Your task to perform on an android device: open device folders in google photos Image 0: 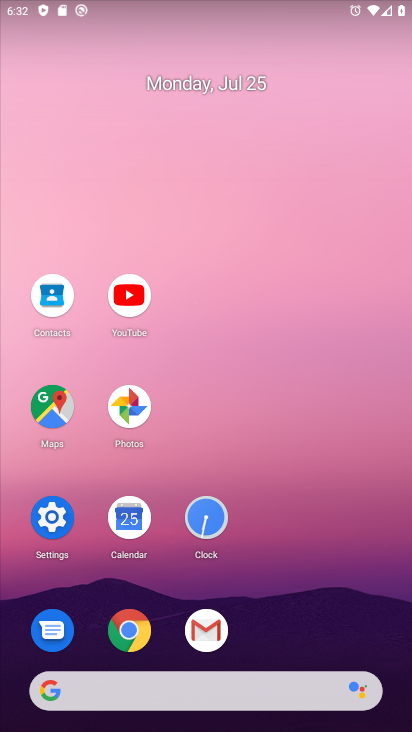
Step 0: click (128, 404)
Your task to perform on an android device: open device folders in google photos Image 1: 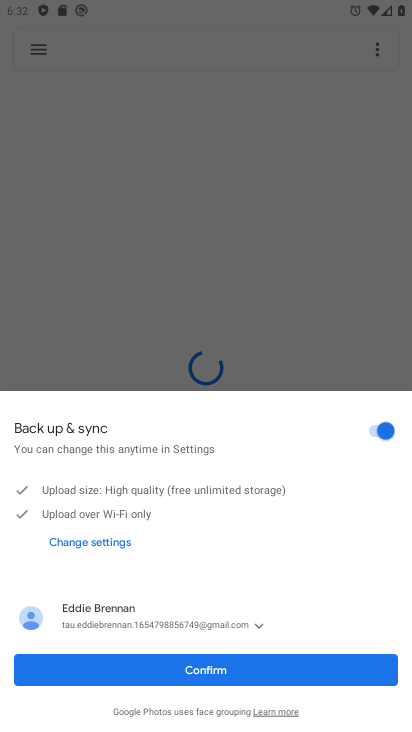
Step 1: click (37, 49)
Your task to perform on an android device: open device folders in google photos Image 2: 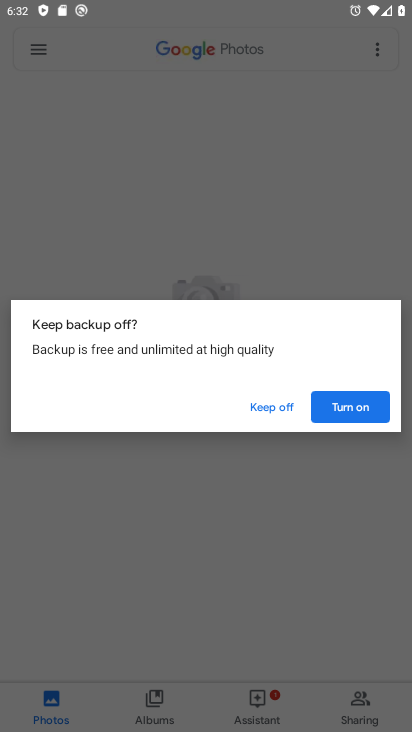
Step 2: click (337, 415)
Your task to perform on an android device: open device folders in google photos Image 3: 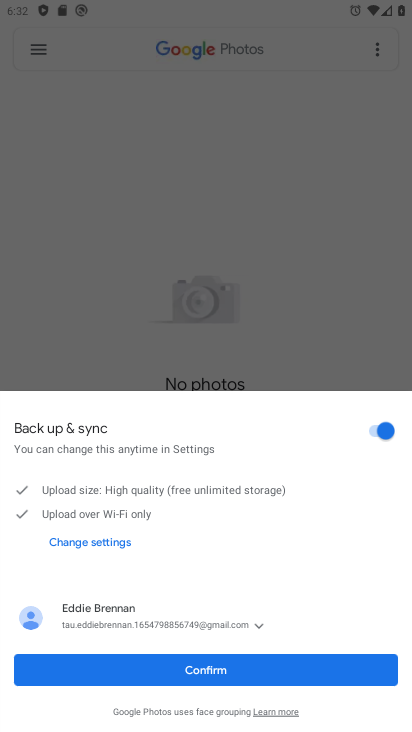
Step 3: click (230, 675)
Your task to perform on an android device: open device folders in google photos Image 4: 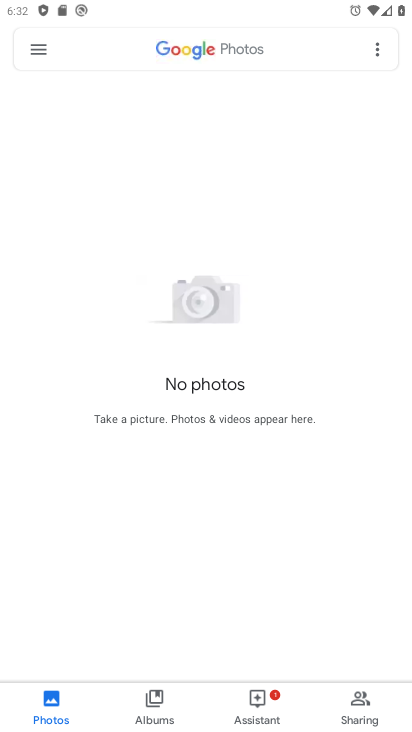
Step 4: click (41, 51)
Your task to perform on an android device: open device folders in google photos Image 5: 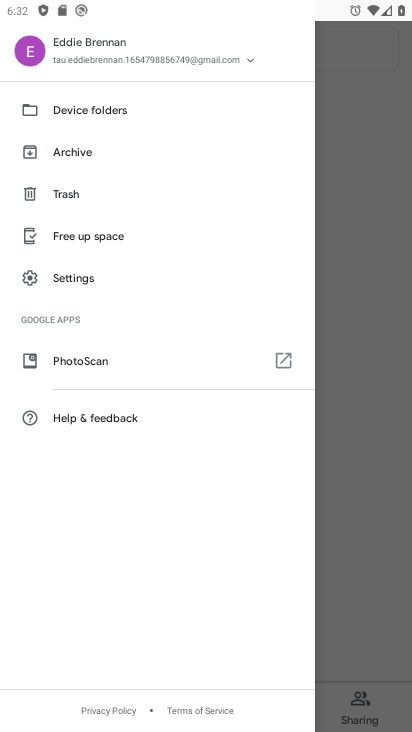
Step 5: click (68, 108)
Your task to perform on an android device: open device folders in google photos Image 6: 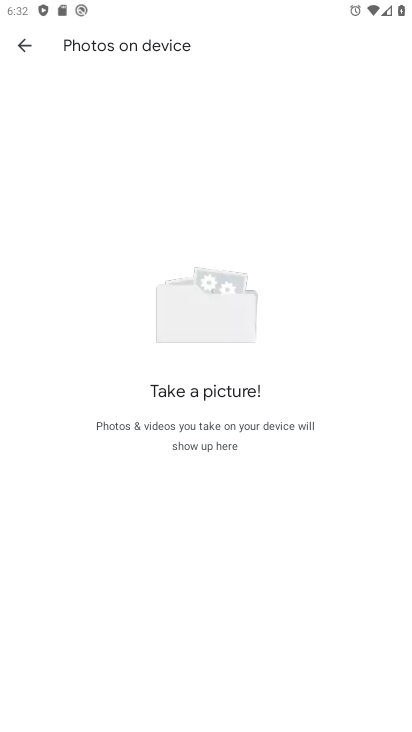
Step 6: task complete